Your task to perform on an android device: open app "Calculator" Image 0: 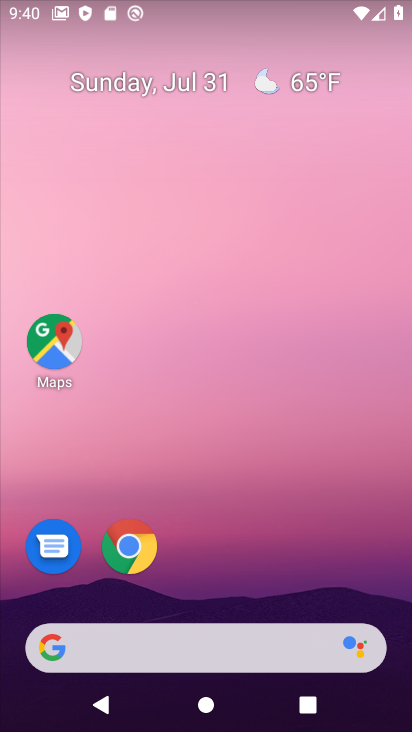
Step 0: drag from (270, 580) to (321, 26)
Your task to perform on an android device: open app "Calculator" Image 1: 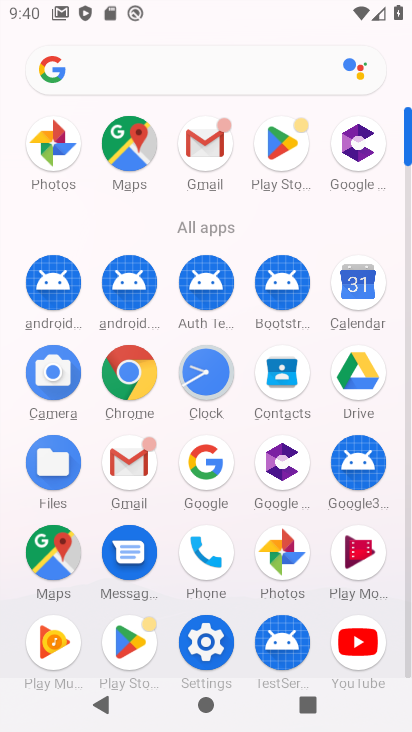
Step 1: drag from (187, 588) to (260, 235)
Your task to perform on an android device: open app "Calculator" Image 2: 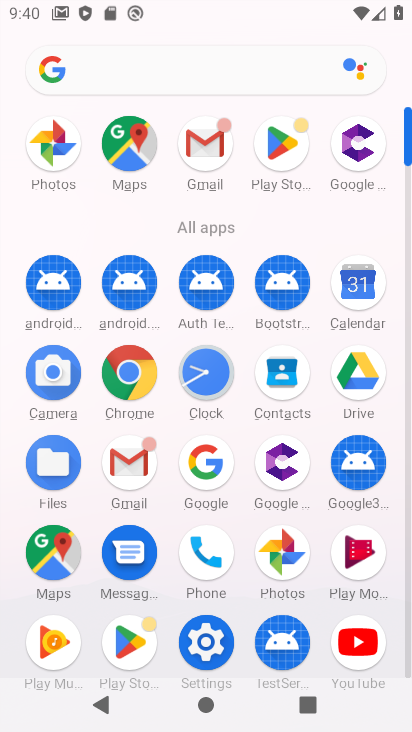
Step 2: click (136, 650)
Your task to perform on an android device: open app "Calculator" Image 3: 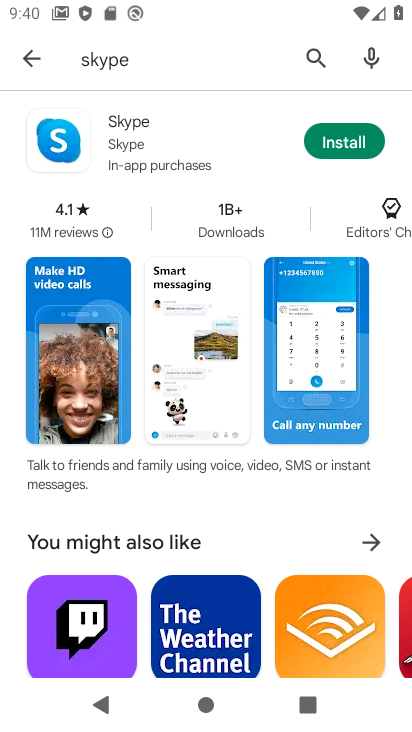
Step 3: click (306, 47)
Your task to perform on an android device: open app "Calculator" Image 4: 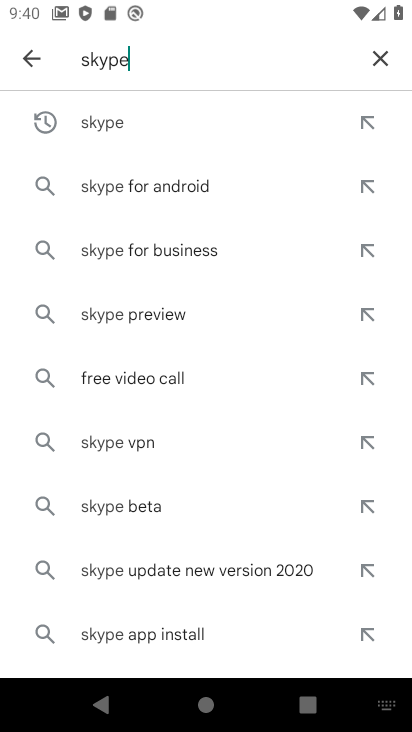
Step 4: click (381, 53)
Your task to perform on an android device: open app "Calculator" Image 5: 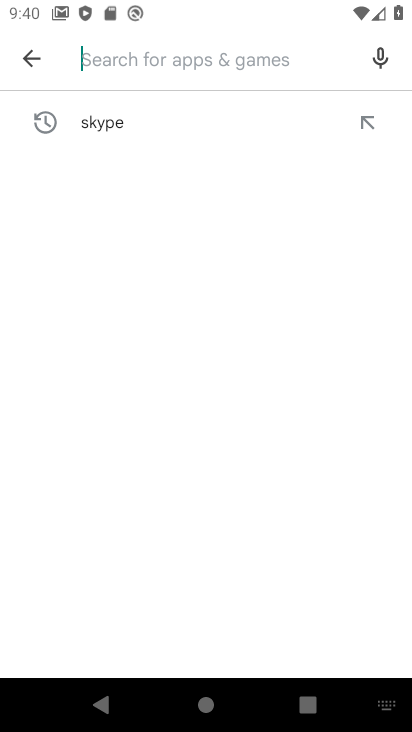
Step 5: type "calculator"
Your task to perform on an android device: open app "Calculator" Image 6: 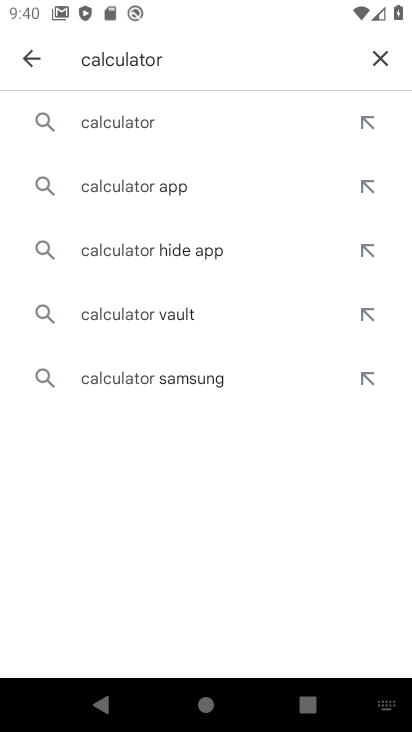
Step 6: click (141, 130)
Your task to perform on an android device: open app "Calculator" Image 7: 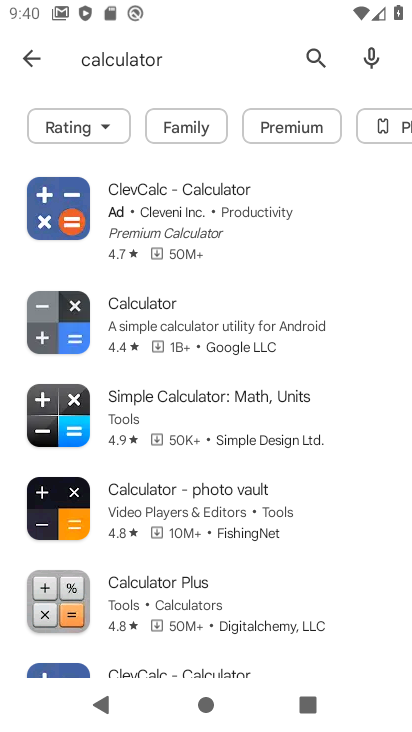
Step 7: task complete